Your task to perform on an android device: turn on notifications settings in the gmail app Image 0: 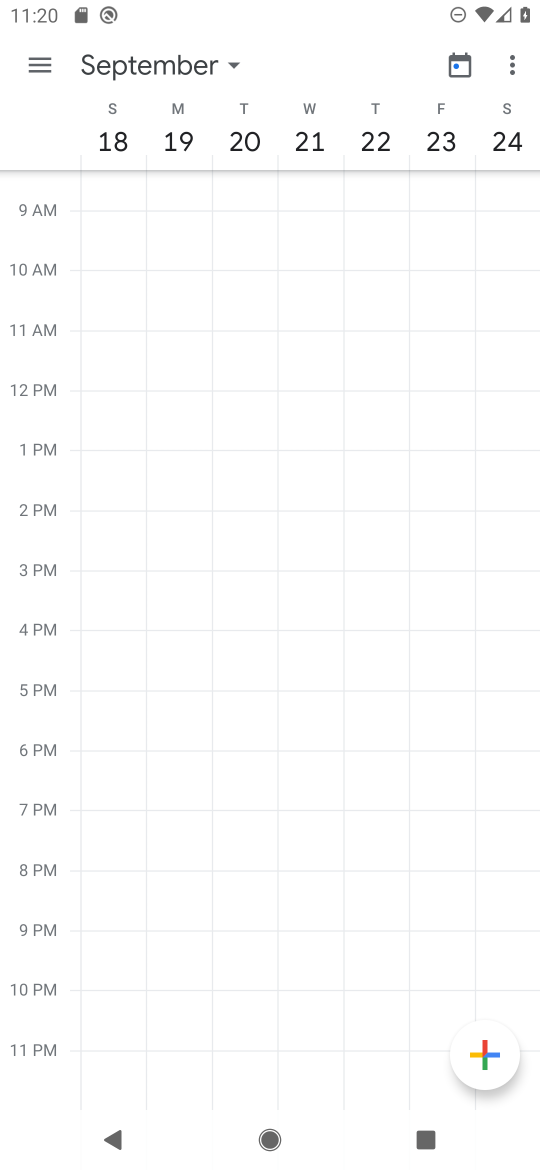
Step 0: press home button
Your task to perform on an android device: turn on notifications settings in the gmail app Image 1: 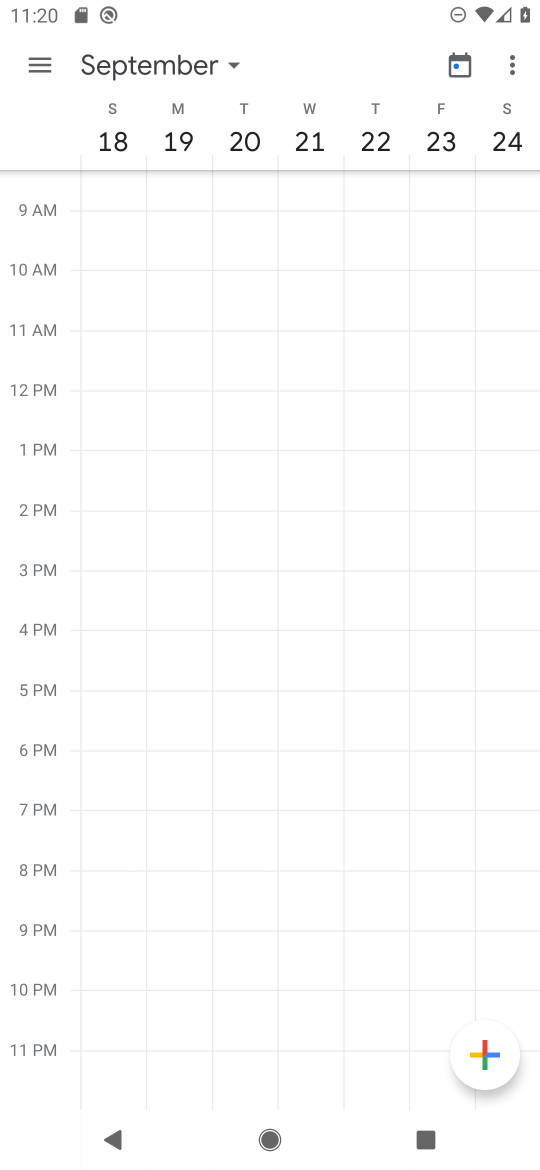
Step 1: press home button
Your task to perform on an android device: turn on notifications settings in the gmail app Image 2: 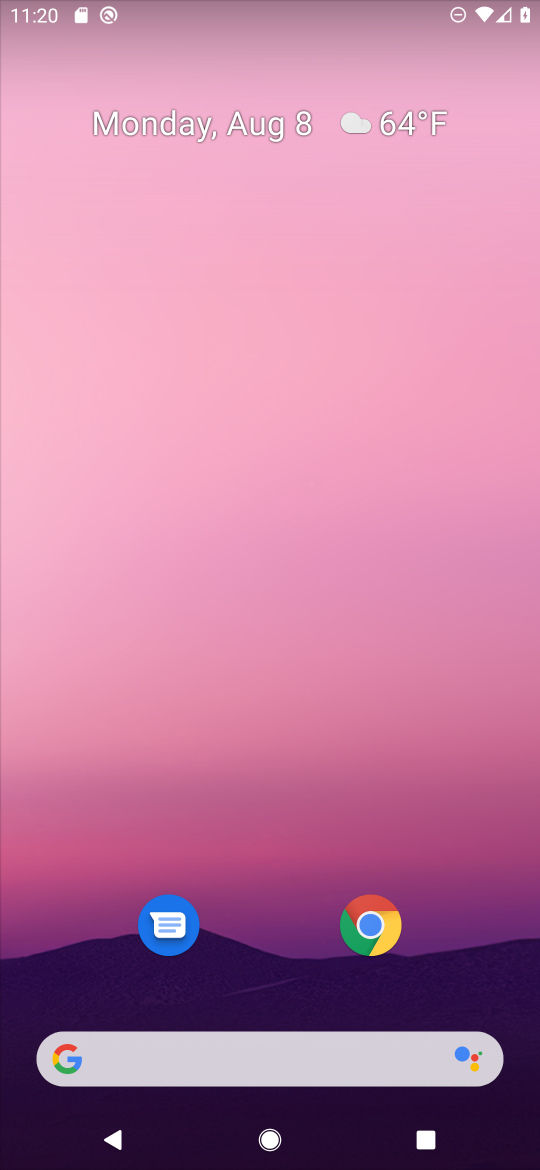
Step 2: drag from (451, 930) to (377, 187)
Your task to perform on an android device: turn on notifications settings in the gmail app Image 3: 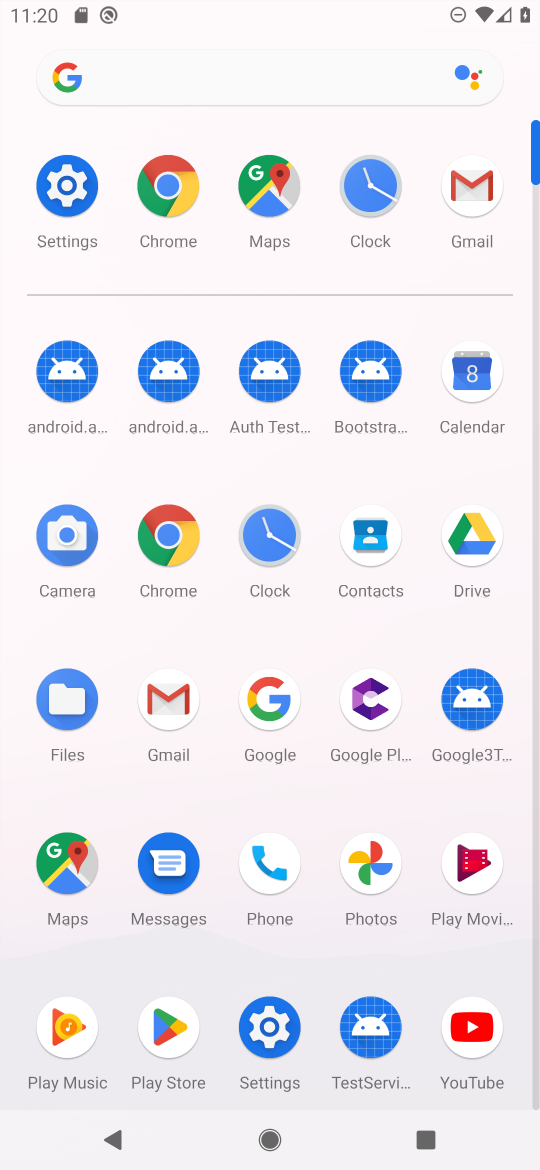
Step 3: click (165, 708)
Your task to perform on an android device: turn on notifications settings in the gmail app Image 4: 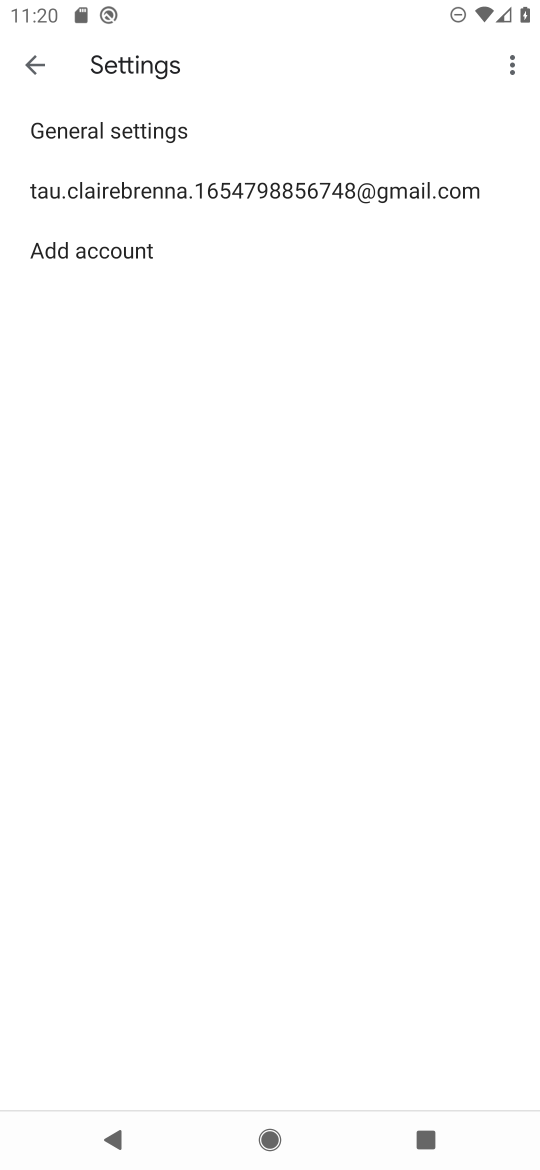
Step 4: click (76, 182)
Your task to perform on an android device: turn on notifications settings in the gmail app Image 5: 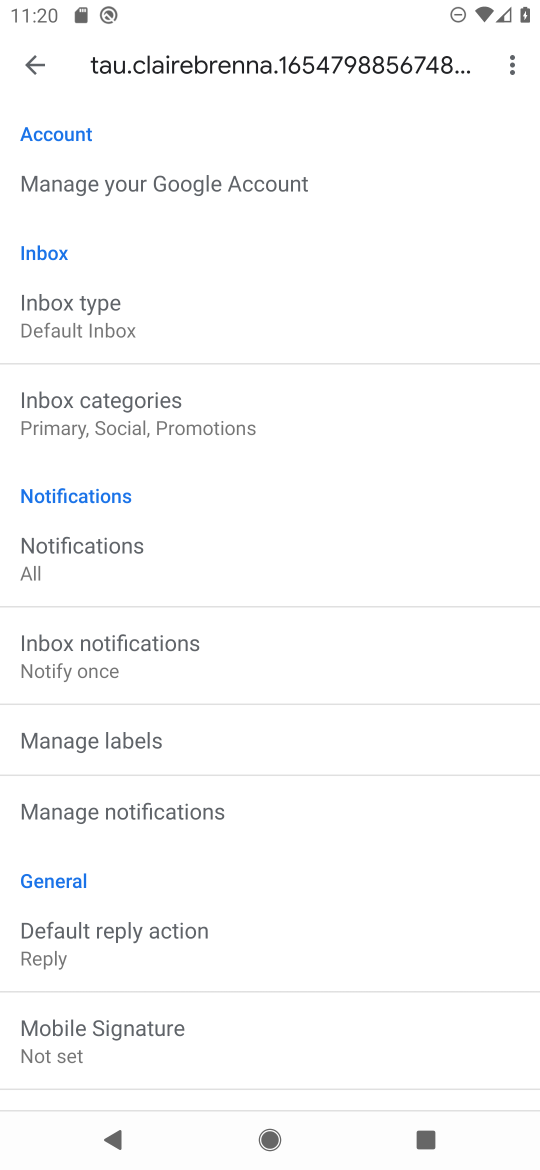
Step 5: click (61, 817)
Your task to perform on an android device: turn on notifications settings in the gmail app Image 6: 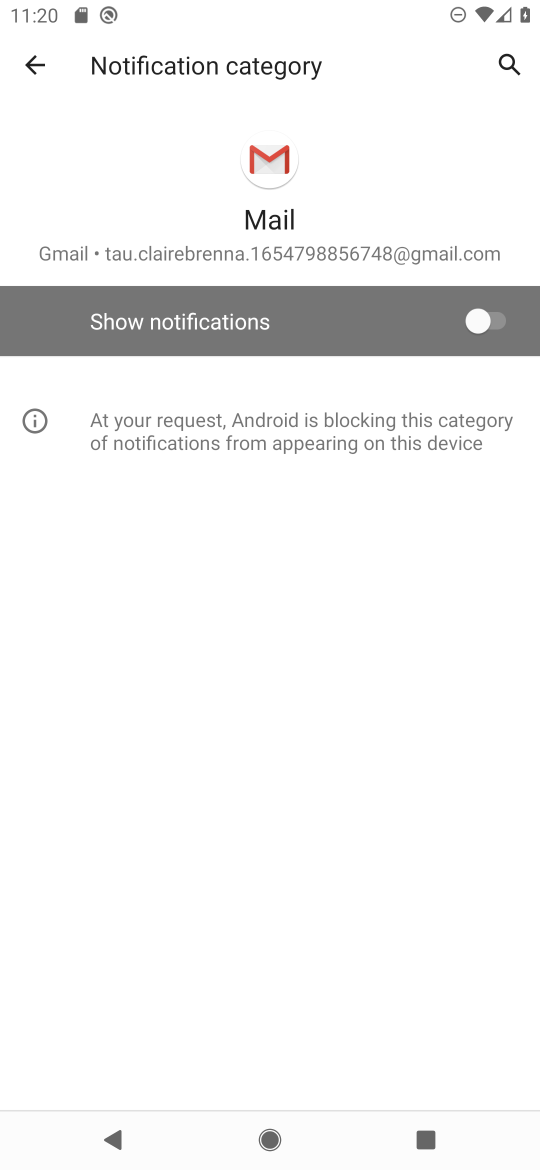
Step 6: click (507, 312)
Your task to perform on an android device: turn on notifications settings in the gmail app Image 7: 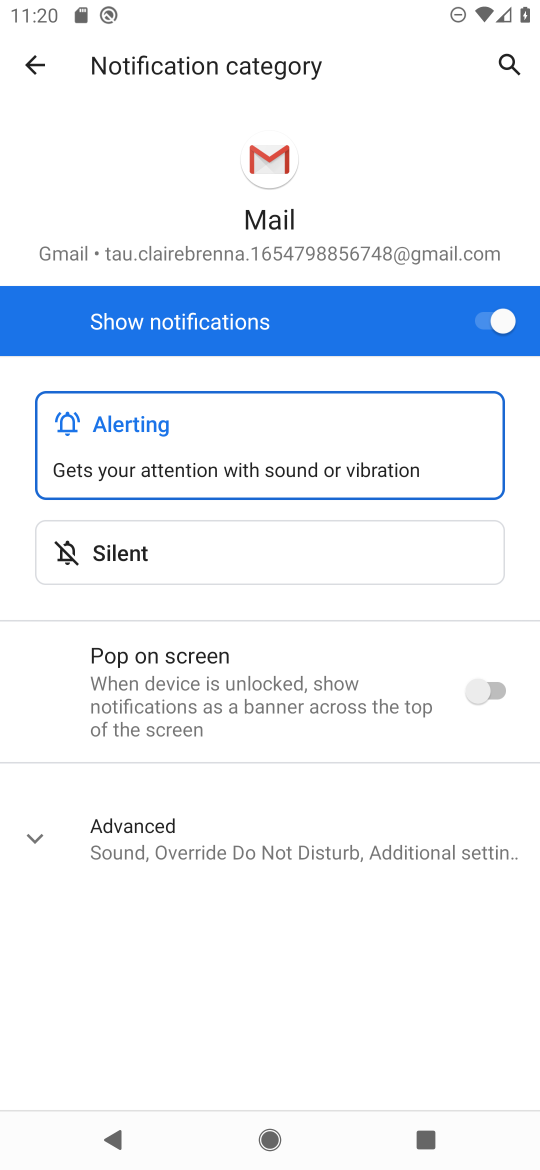
Step 7: task complete